Your task to perform on an android device: turn on sleep mode Image 0: 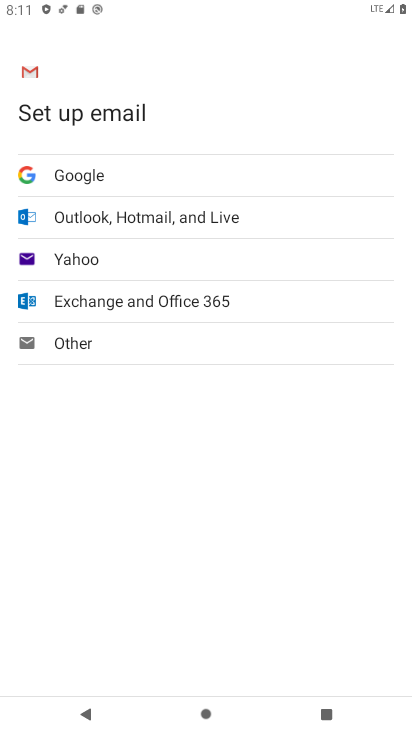
Step 0: drag from (302, 604) to (309, 421)
Your task to perform on an android device: turn on sleep mode Image 1: 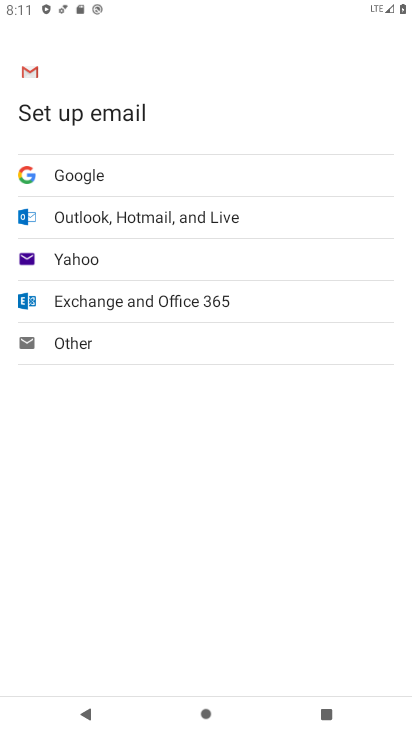
Step 1: press home button
Your task to perform on an android device: turn on sleep mode Image 2: 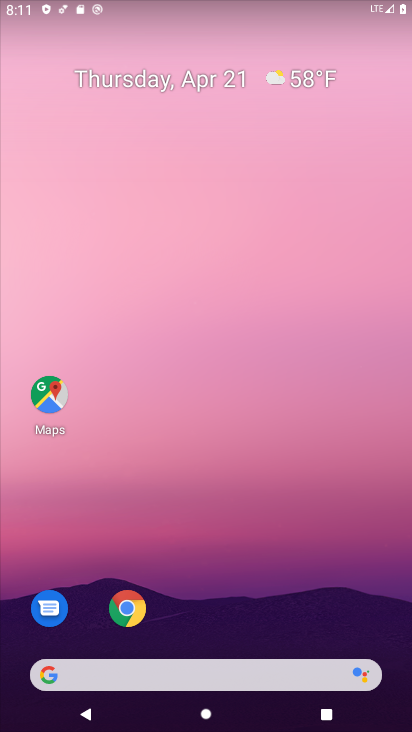
Step 2: drag from (275, 599) to (297, 179)
Your task to perform on an android device: turn on sleep mode Image 3: 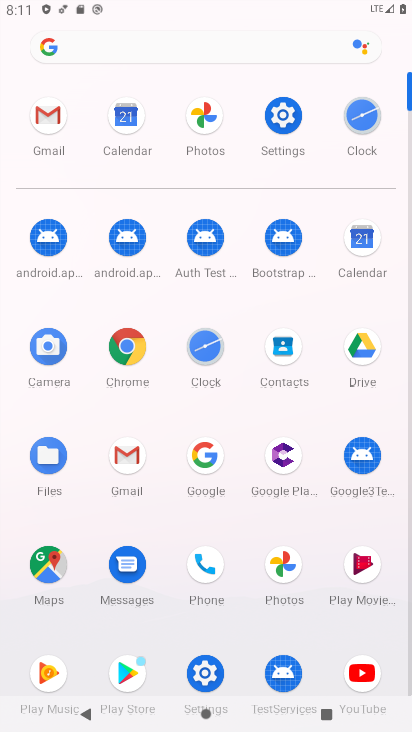
Step 3: click (288, 115)
Your task to perform on an android device: turn on sleep mode Image 4: 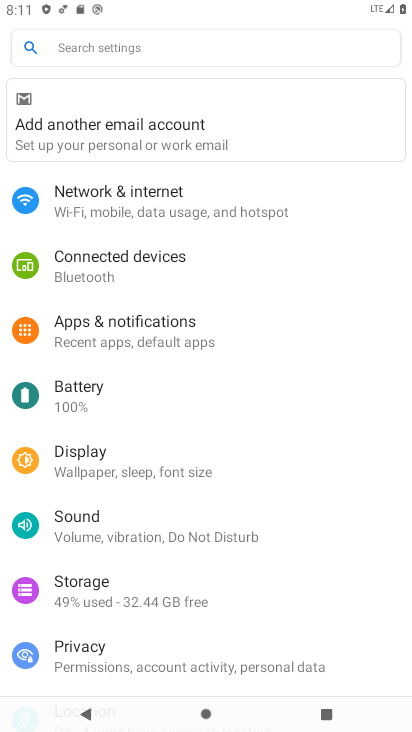
Step 4: click (161, 455)
Your task to perform on an android device: turn on sleep mode Image 5: 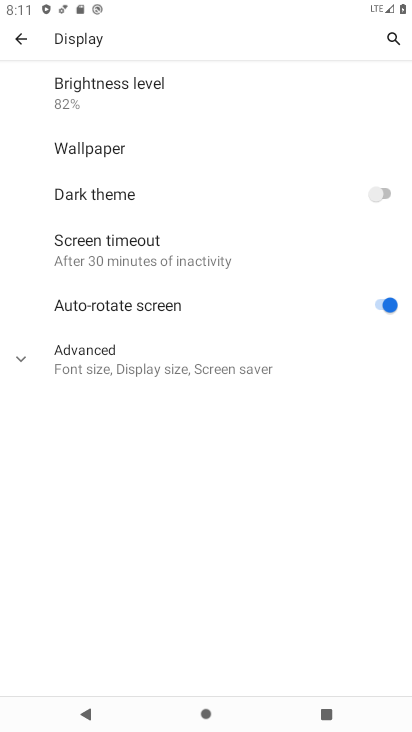
Step 5: click (18, 355)
Your task to perform on an android device: turn on sleep mode Image 6: 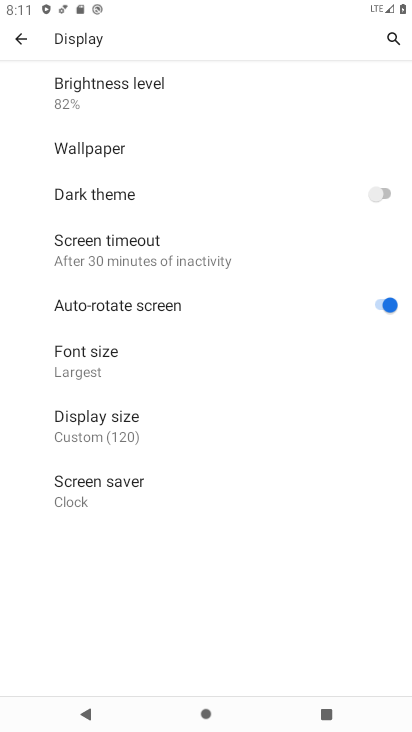
Step 6: task complete